Your task to perform on an android device: toggle wifi Image 0: 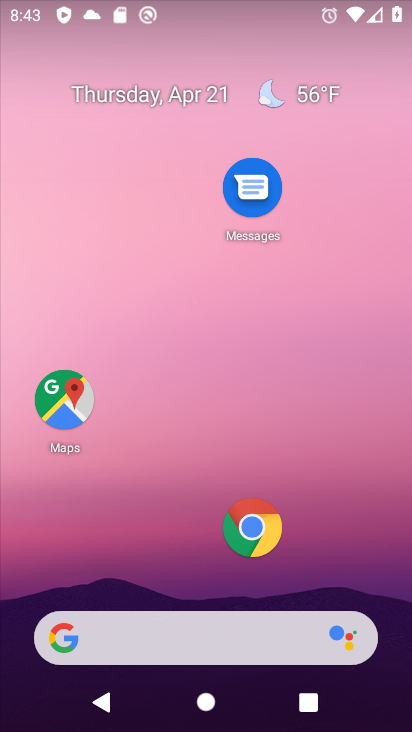
Step 0: drag from (162, 617) to (328, 17)
Your task to perform on an android device: toggle wifi Image 1: 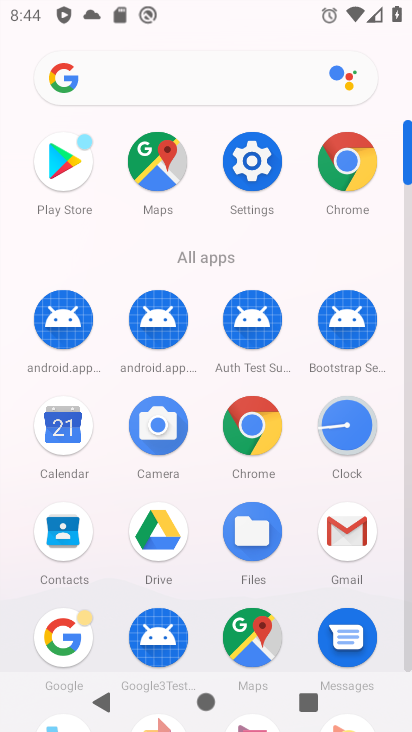
Step 1: click (254, 175)
Your task to perform on an android device: toggle wifi Image 2: 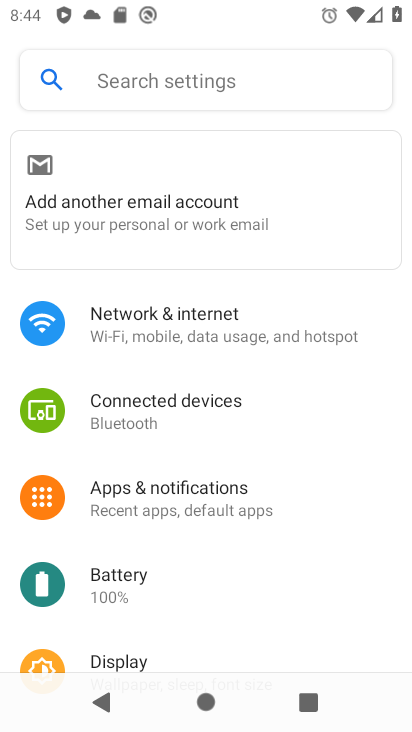
Step 2: click (180, 321)
Your task to perform on an android device: toggle wifi Image 3: 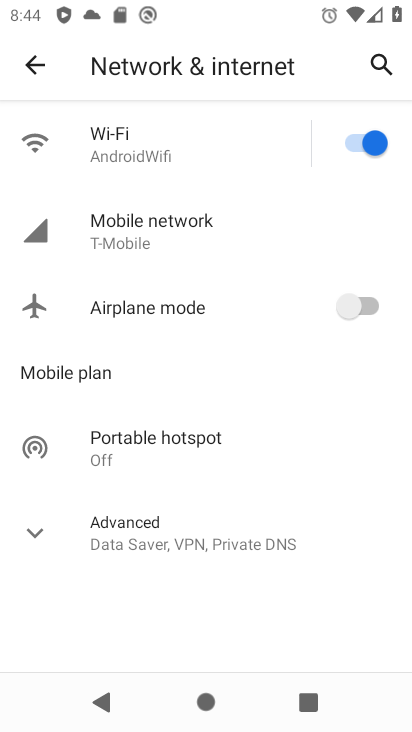
Step 3: click (355, 146)
Your task to perform on an android device: toggle wifi Image 4: 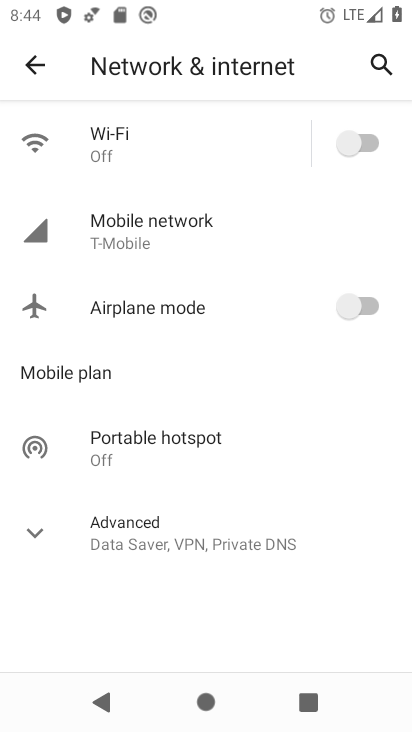
Step 4: task complete